Your task to perform on an android device: set default search engine in the chrome app Image 0: 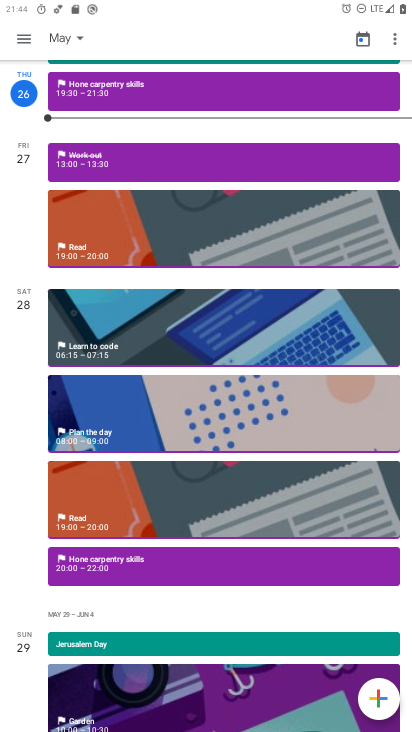
Step 0: drag from (210, 578) to (292, 119)
Your task to perform on an android device: set default search engine in the chrome app Image 1: 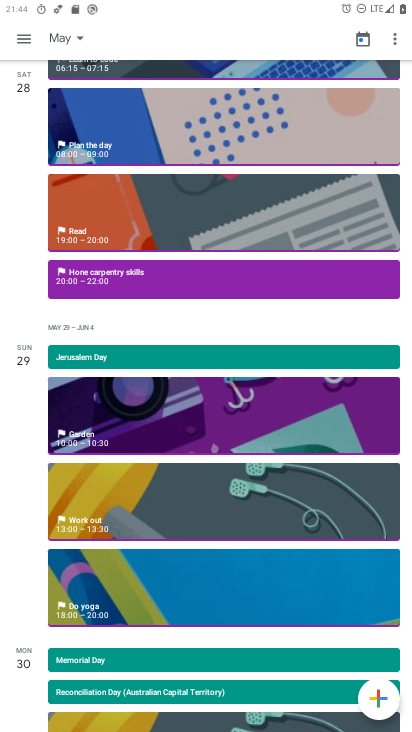
Step 1: click (64, 36)
Your task to perform on an android device: set default search engine in the chrome app Image 2: 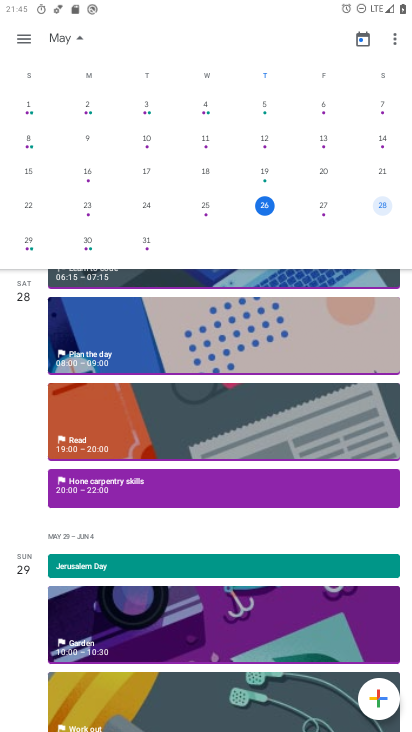
Step 2: press home button
Your task to perform on an android device: set default search engine in the chrome app Image 3: 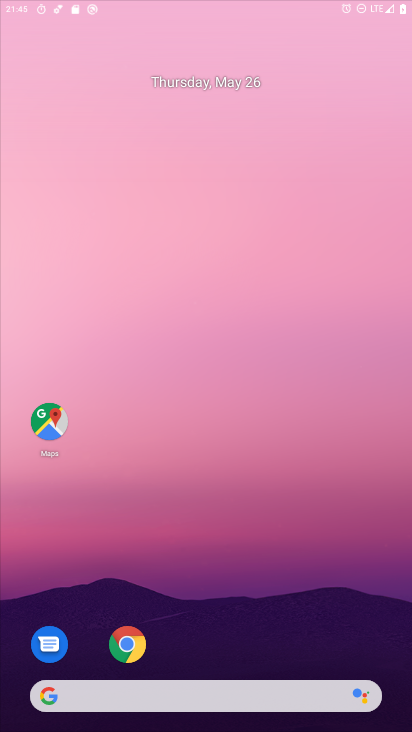
Step 3: drag from (165, 675) to (197, 73)
Your task to perform on an android device: set default search engine in the chrome app Image 4: 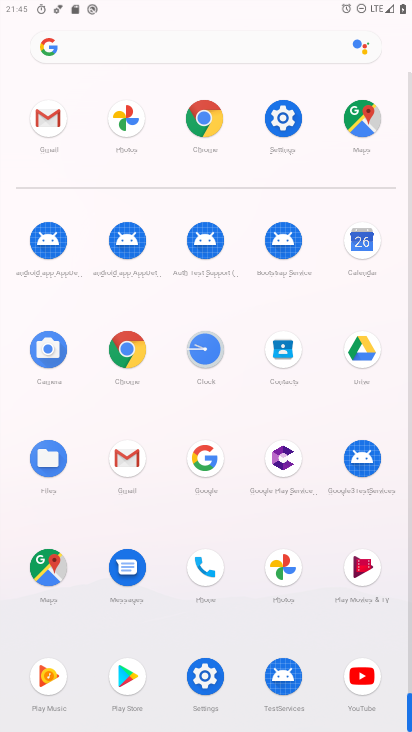
Step 4: click (127, 350)
Your task to perform on an android device: set default search engine in the chrome app Image 5: 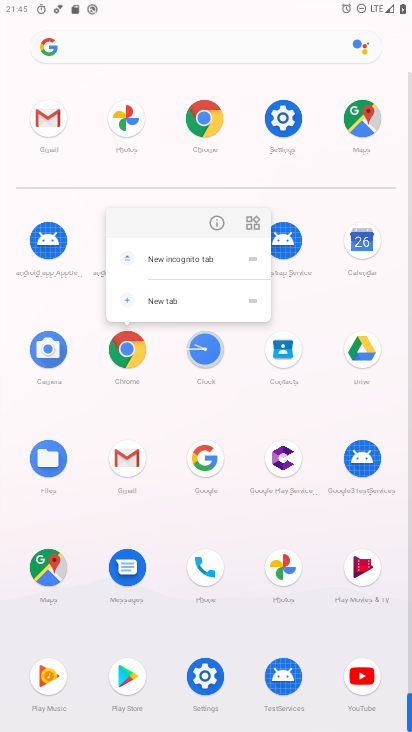
Step 5: click (212, 221)
Your task to perform on an android device: set default search engine in the chrome app Image 6: 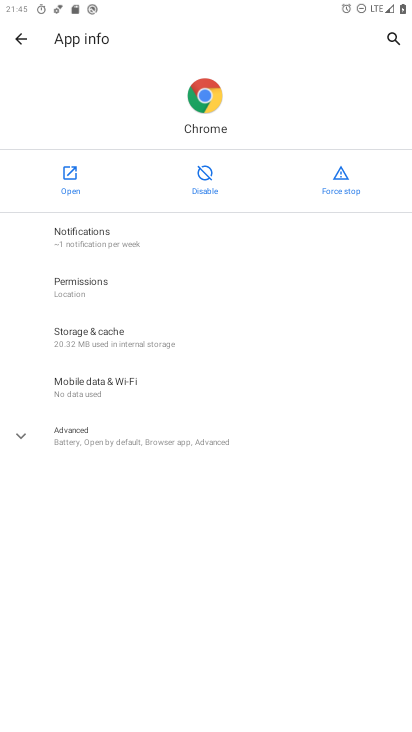
Step 6: click (59, 174)
Your task to perform on an android device: set default search engine in the chrome app Image 7: 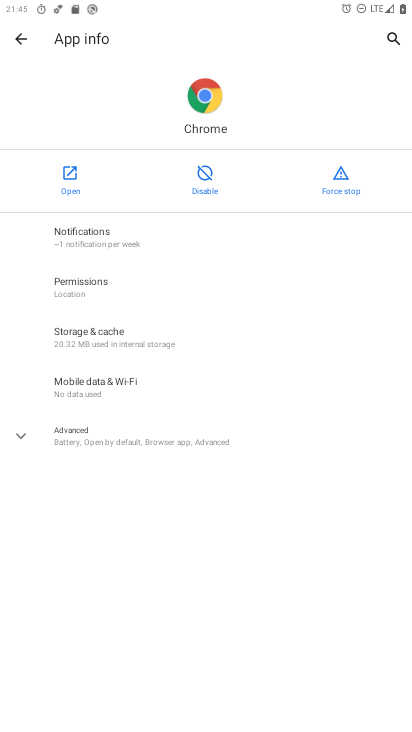
Step 7: click (69, 184)
Your task to perform on an android device: set default search engine in the chrome app Image 8: 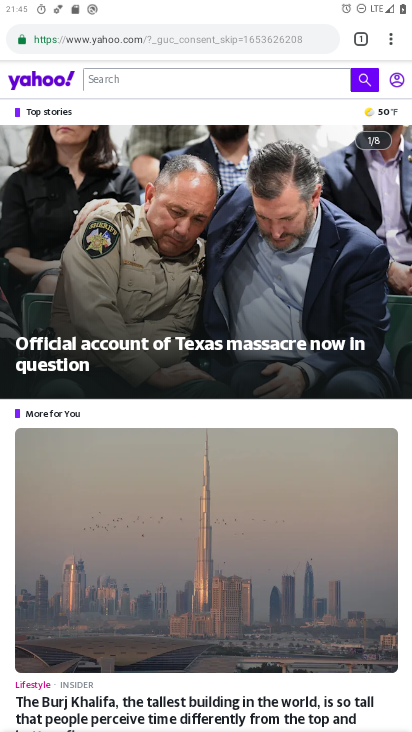
Step 8: drag from (200, 425) to (254, 156)
Your task to perform on an android device: set default search engine in the chrome app Image 9: 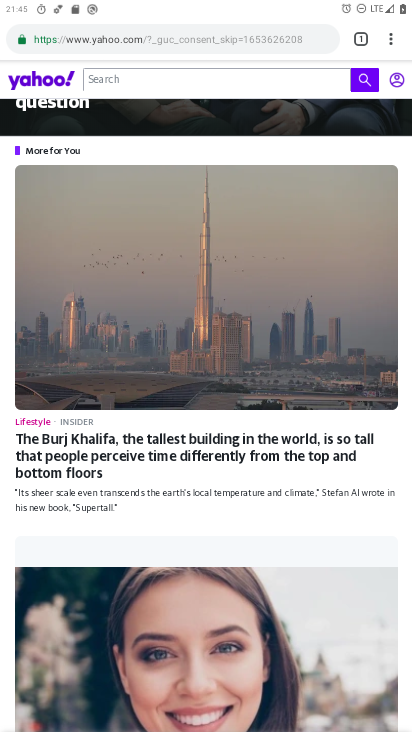
Step 9: drag from (255, 586) to (367, 142)
Your task to perform on an android device: set default search engine in the chrome app Image 10: 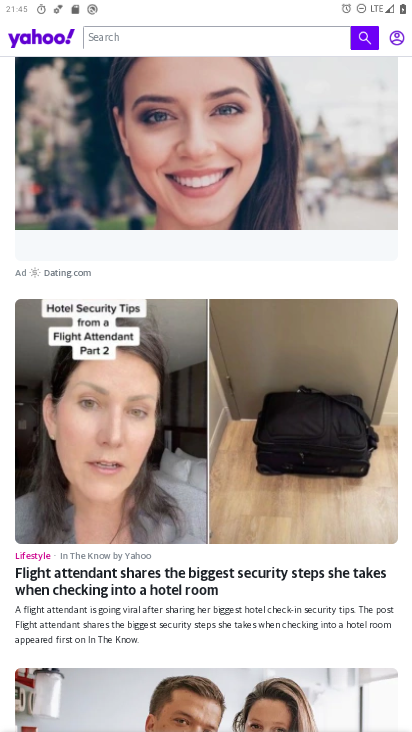
Step 10: drag from (224, 584) to (217, 278)
Your task to perform on an android device: set default search engine in the chrome app Image 11: 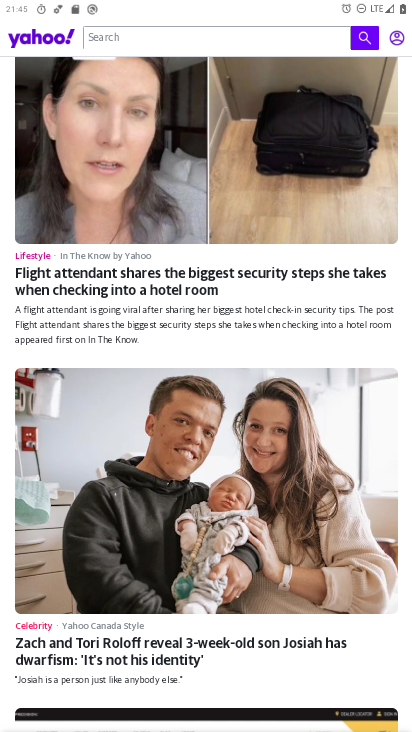
Step 11: drag from (248, 270) to (409, 573)
Your task to perform on an android device: set default search engine in the chrome app Image 12: 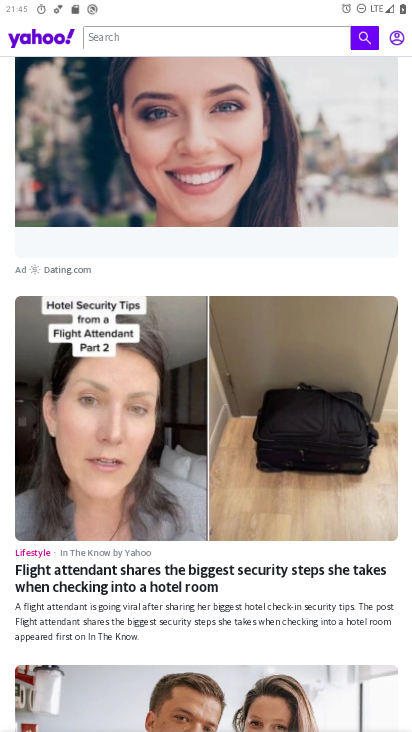
Step 12: drag from (381, 58) to (318, 466)
Your task to perform on an android device: set default search engine in the chrome app Image 13: 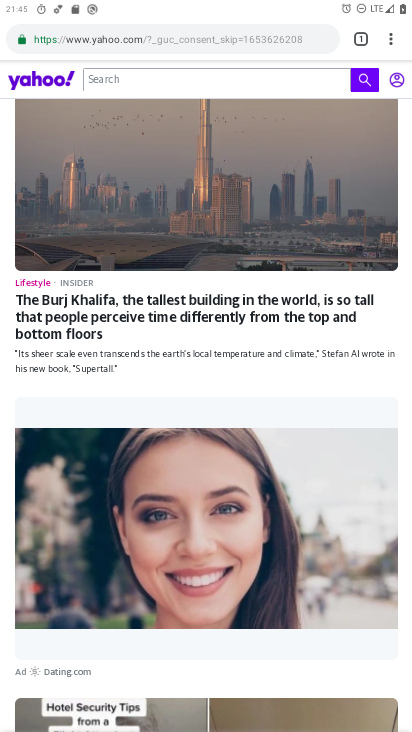
Step 13: drag from (385, 35) to (275, 434)
Your task to perform on an android device: set default search engine in the chrome app Image 14: 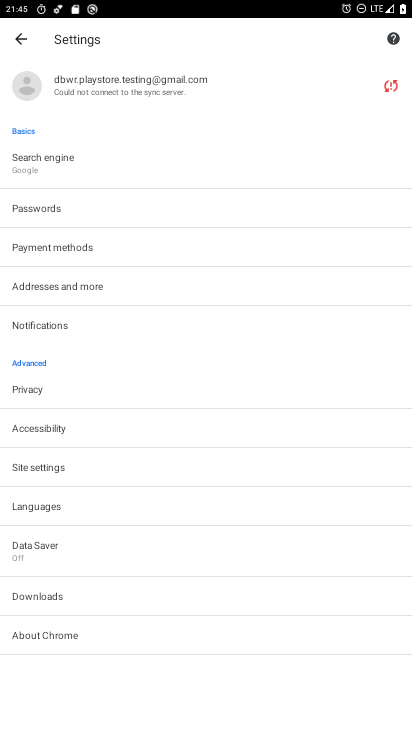
Step 14: click (125, 165)
Your task to perform on an android device: set default search engine in the chrome app Image 15: 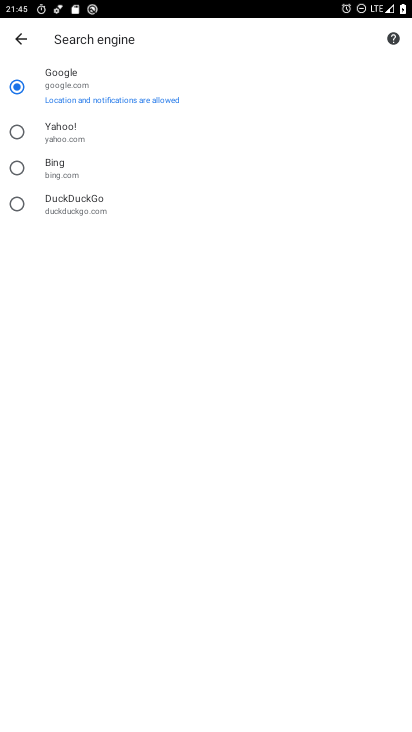
Step 15: task complete